Your task to perform on an android device: turn off notifications in google photos Image 0: 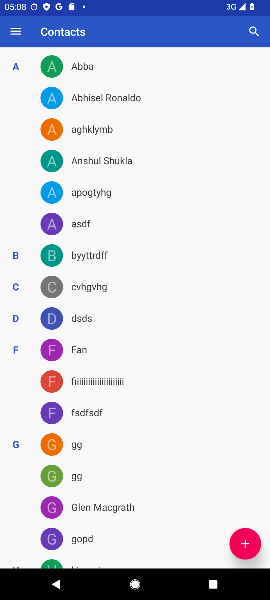
Step 0: press home button
Your task to perform on an android device: turn off notifications in google photos Image 1: 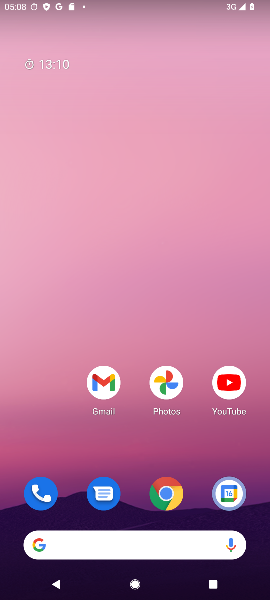
Step 1: drag from (51, 439) to (63, 131)
Your task to perform on an android device: turn off notifications in google photos Image 2: 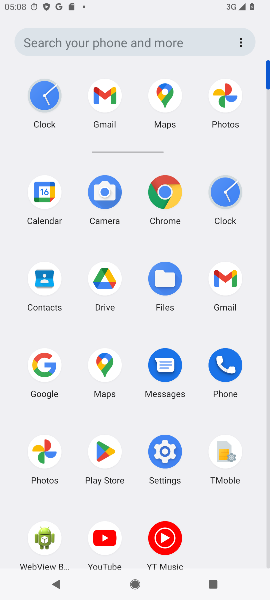
Step 2: click (40, 458)
Your task to perform on an android device: turn off notifications in google photos Image 3: 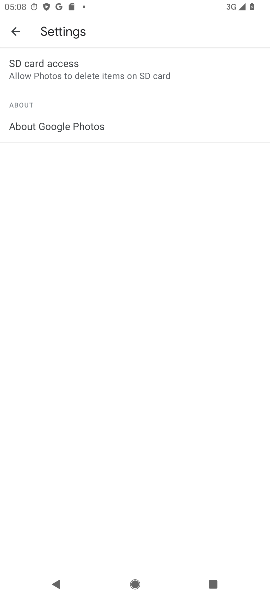
Step 3: press back button
Your task to perform on an android device: turn off notifications in google photos Image 4: 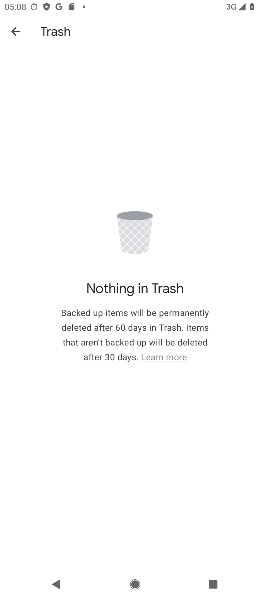
Step 4: press back button
Your task to perform on an android device: turn off notifications in google photos Image 5: 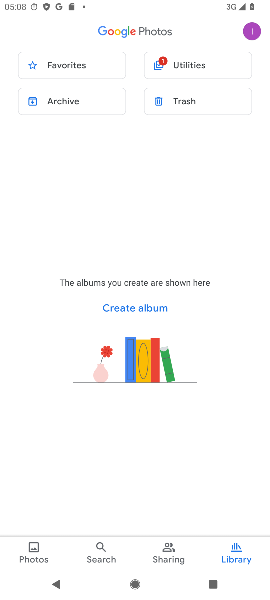
Step 5: click (248, 29)
Your task to perform on an android device: turn off notifications in google photos Image 6: 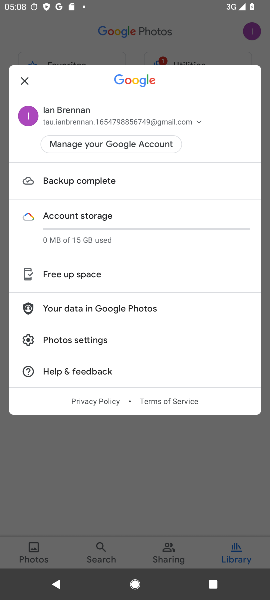
Step 6: click (102, 346)
Your task to perform on an android device: turn off notifications in google photos Image 7: 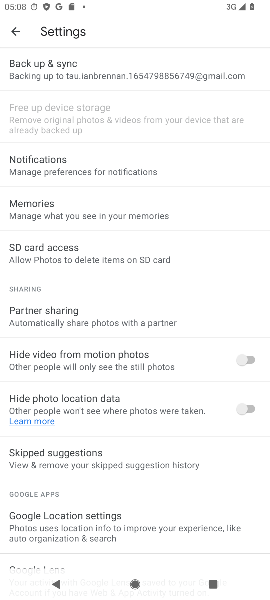
Step 7: click (97, 165)
Your task to perform on an android device: turn off notifications in google photos Image 8: 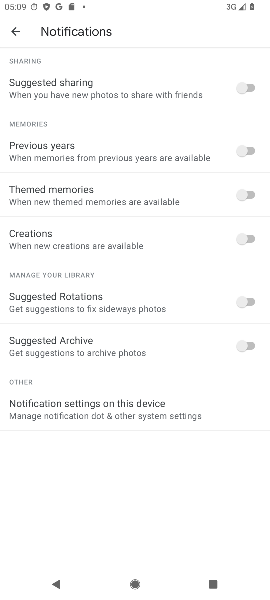
Step 8: click (122, 400)
Your task to perform on an android device: turn off notifications in google photos Image 9: 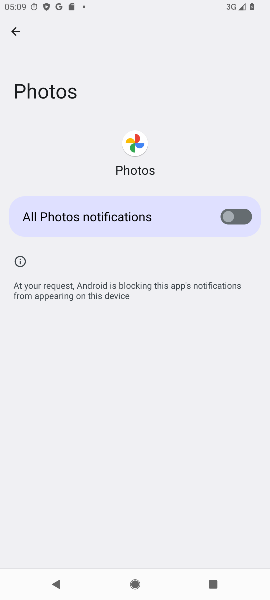
Step 9: task complete